Your task to perform on an android device: check google app version Image 0: 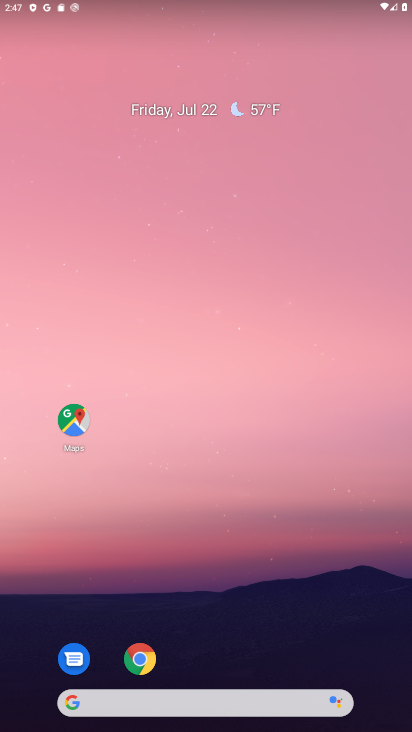
Step 0: drag from (257, 592) to (284, 14)
Your task to perform on an android device: check google app version Image 1: 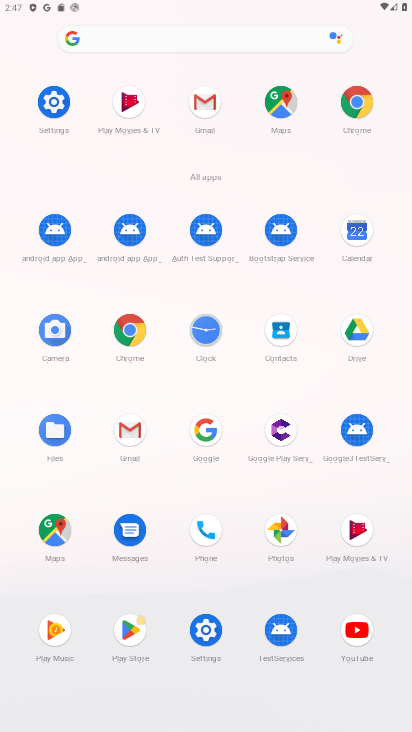
Step 1: click (207, 434)
Your task to perform on an android device: check google app version Image 2: 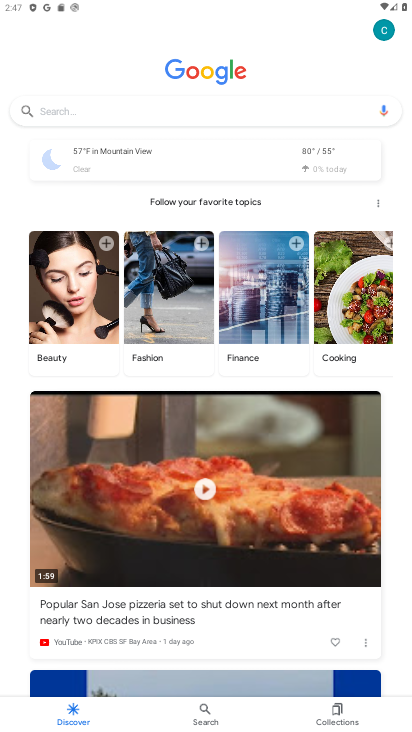
Step 2: click (380, 29)
Your task to perform on an android device: check google app version Image 3: 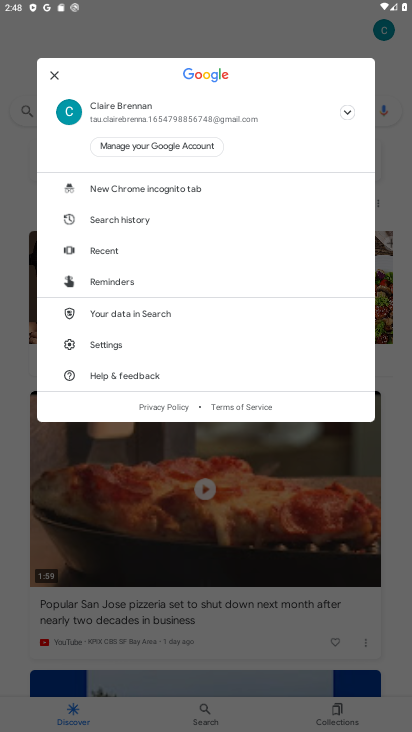
Step 3: click (155, 339)
Your task to perform on an android device: check google app version Image 4: 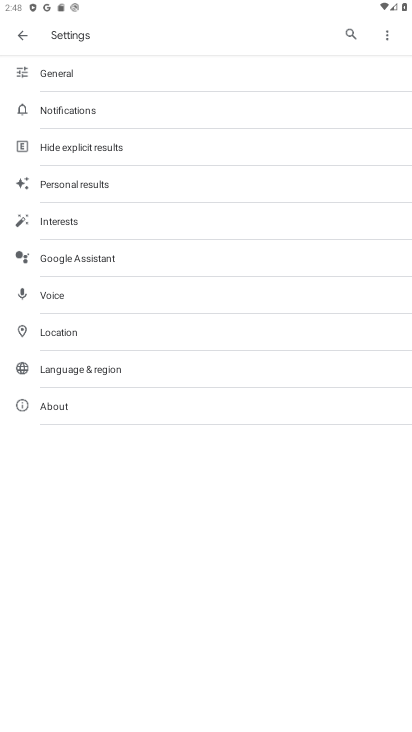
Step 4: click (125, 410)
Your task to perform on an android device: check google app version Image 5: 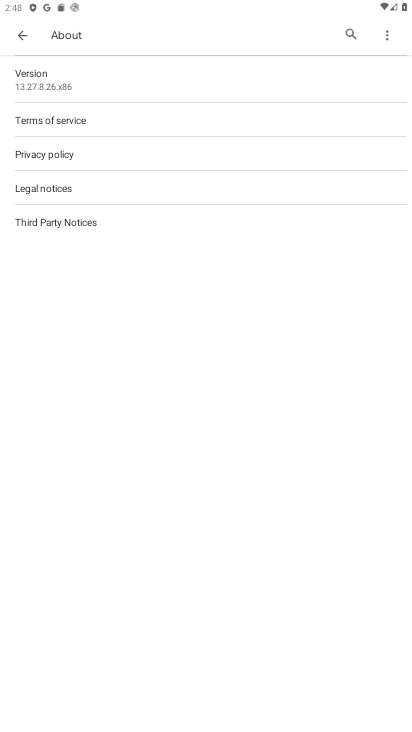
Step 5: task complete